Your task to perform on an android device: Open CNN.com Image 0: 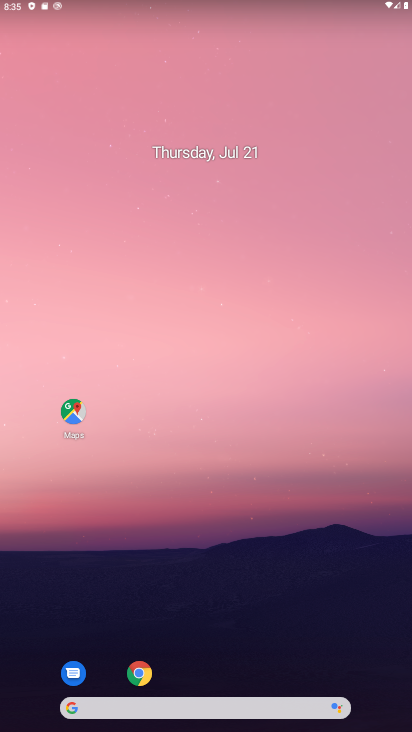
Step 0: click (137, 672)
Your task to perform on an android device: Open CNN.com Image 1: 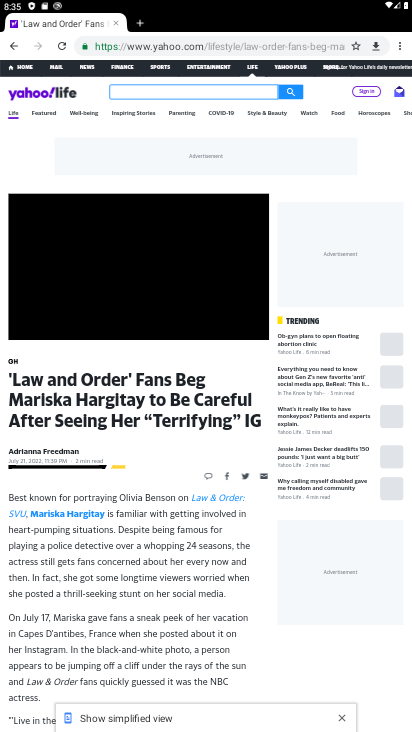
Step 1: click (400, 47)
Your task to perform on an android device: Open CNN.com Image 2: 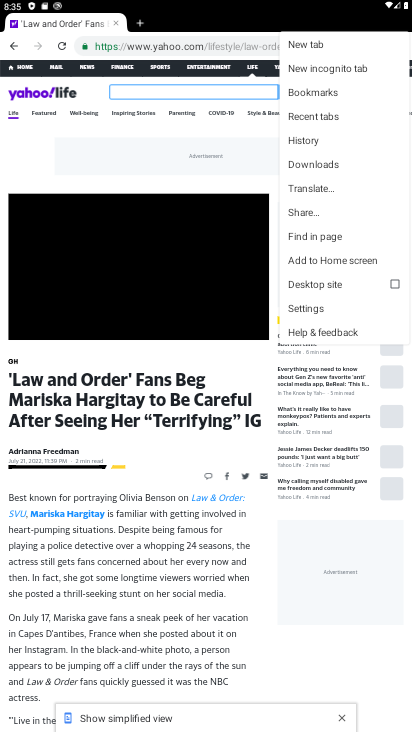
Step 2: click (308, 43)
Your task to perform on an android device: Open CNN.com Image 3: 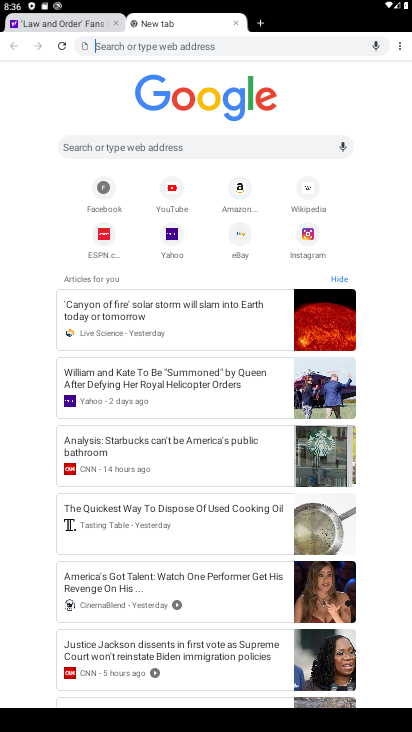
Step 3: click (235, 149)
Your task to perform on an android device: Open CNN.com Image 4: 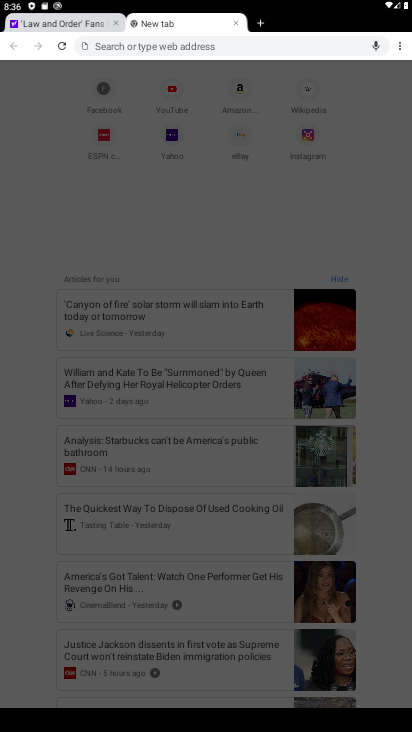
Step 4: type "CNN.com"
Your task to perform on an android device: Open CNN.com Image 5: 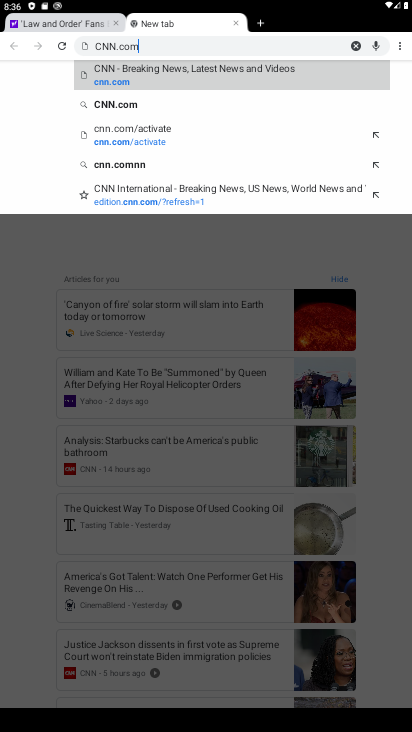
Step 5: click (215, 74)
Your task to perform on an android device: Open CNN.com Image 6: 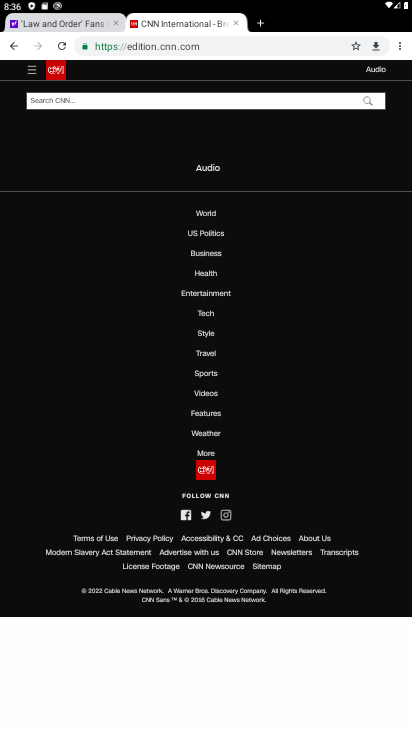
Step 6: task complete